Your task to perform on an android device: delete browsing data in the chrome app Image 0: 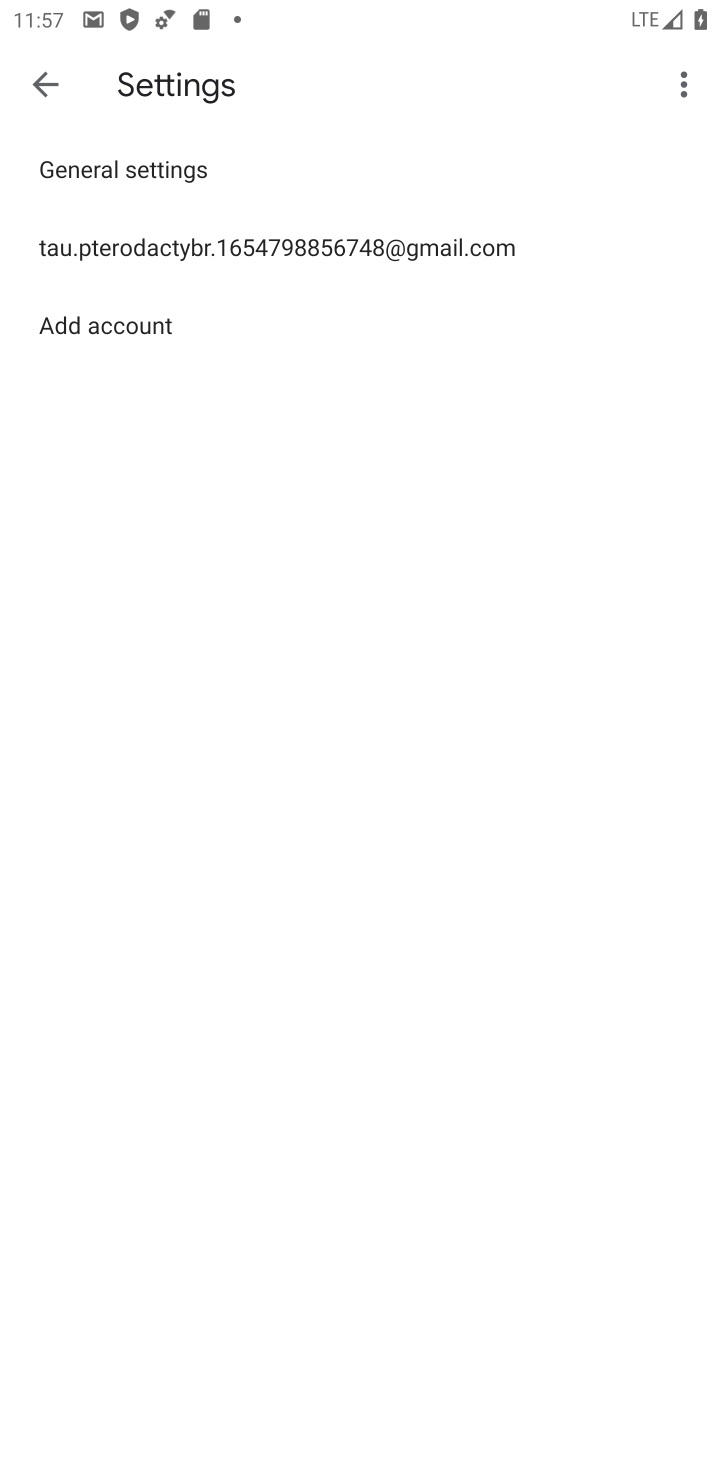
Step 0: click (35, 81)
Your task to perform on an android device: delete browsing data in the chrome app Image 1: 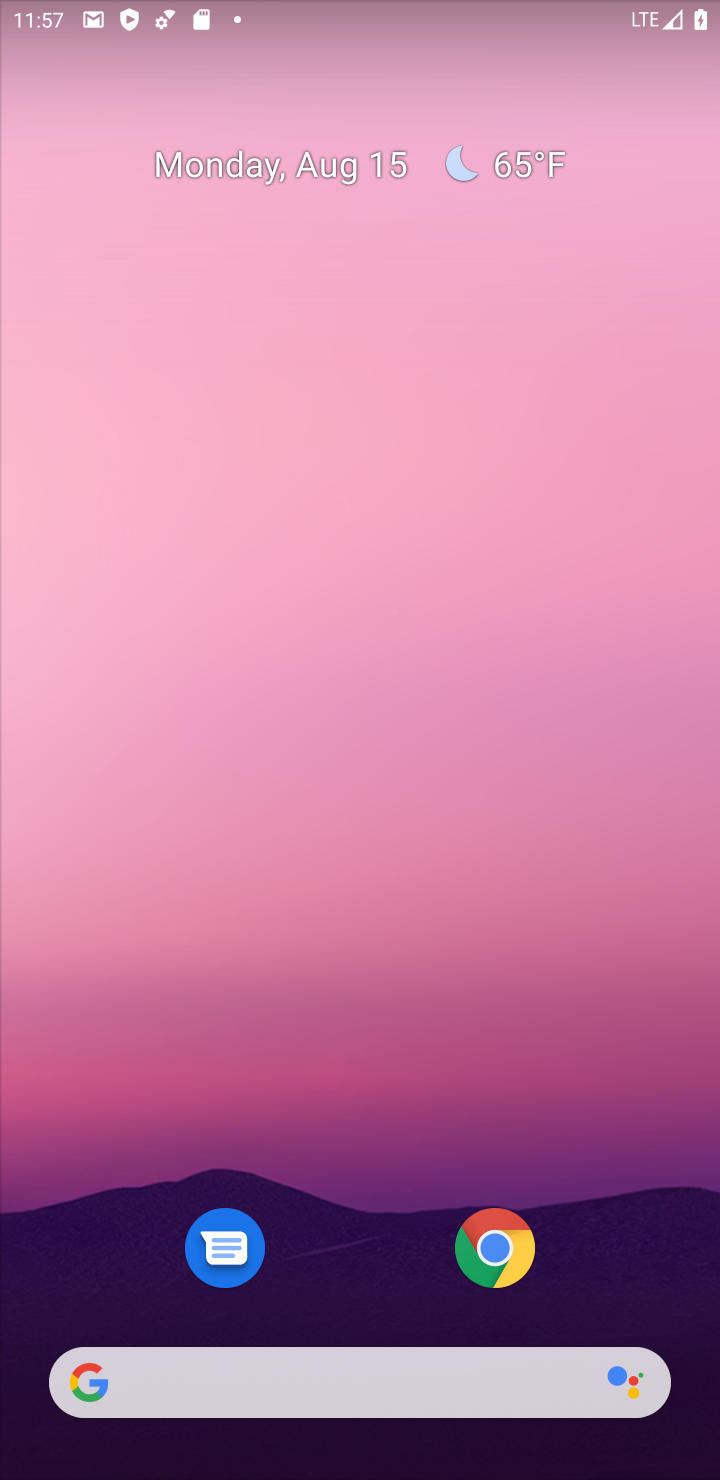
Step 1: click (517, 1292)
Your task to perform on an android device: delete browsing data in the chrome app Image 2: 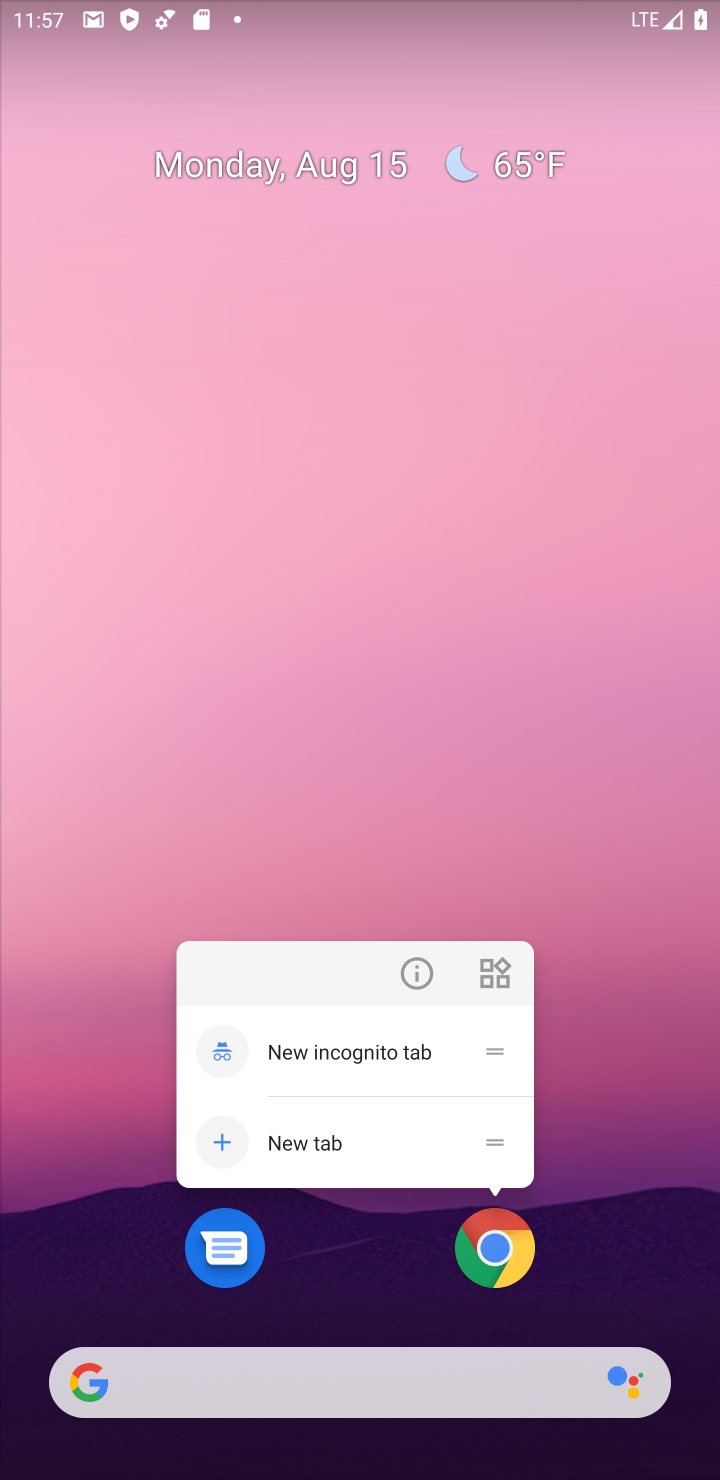
Step 2: click (320, 1163)
Your task to perform on an android device: delete browsing data in the chrome app Image 3: 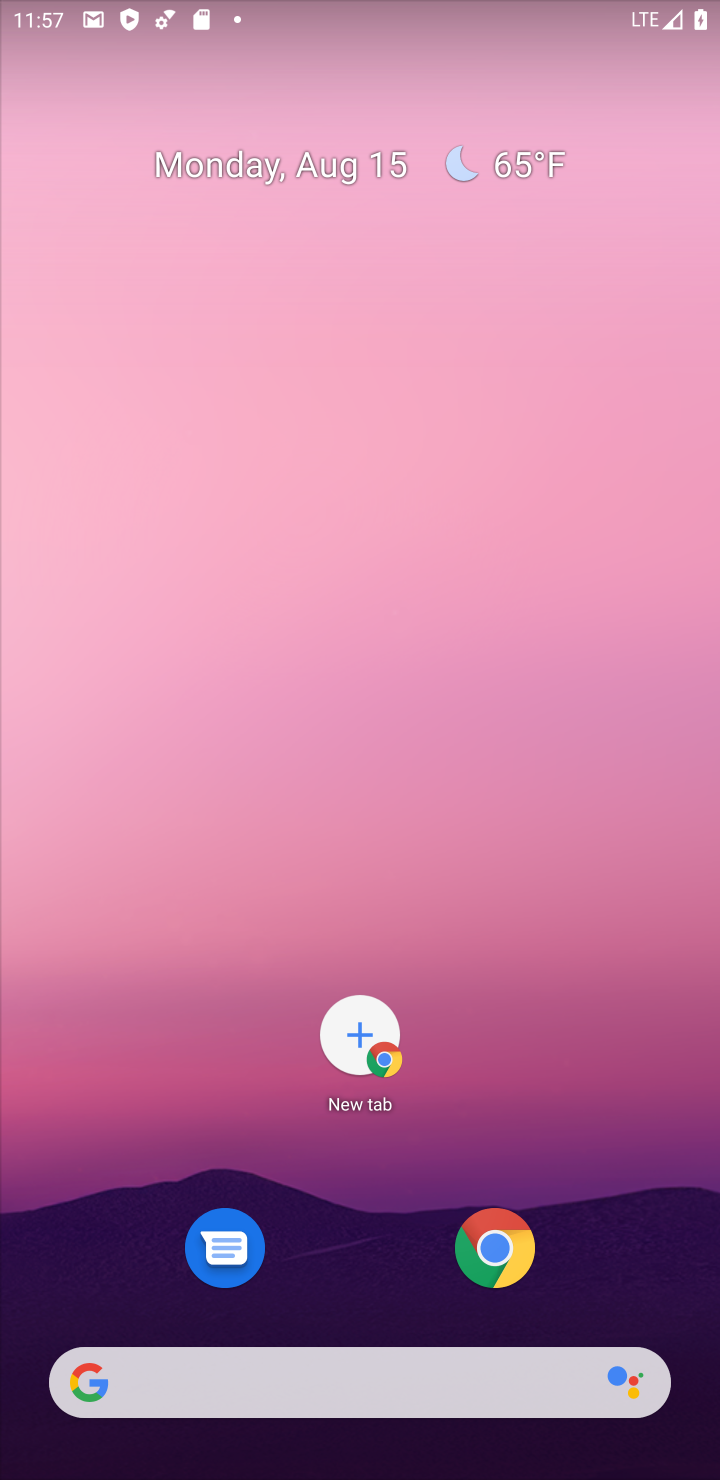
Step 3: click (495, 1268)
Your task to perform on an android device: delete browsing data in the chrome app Image 4: 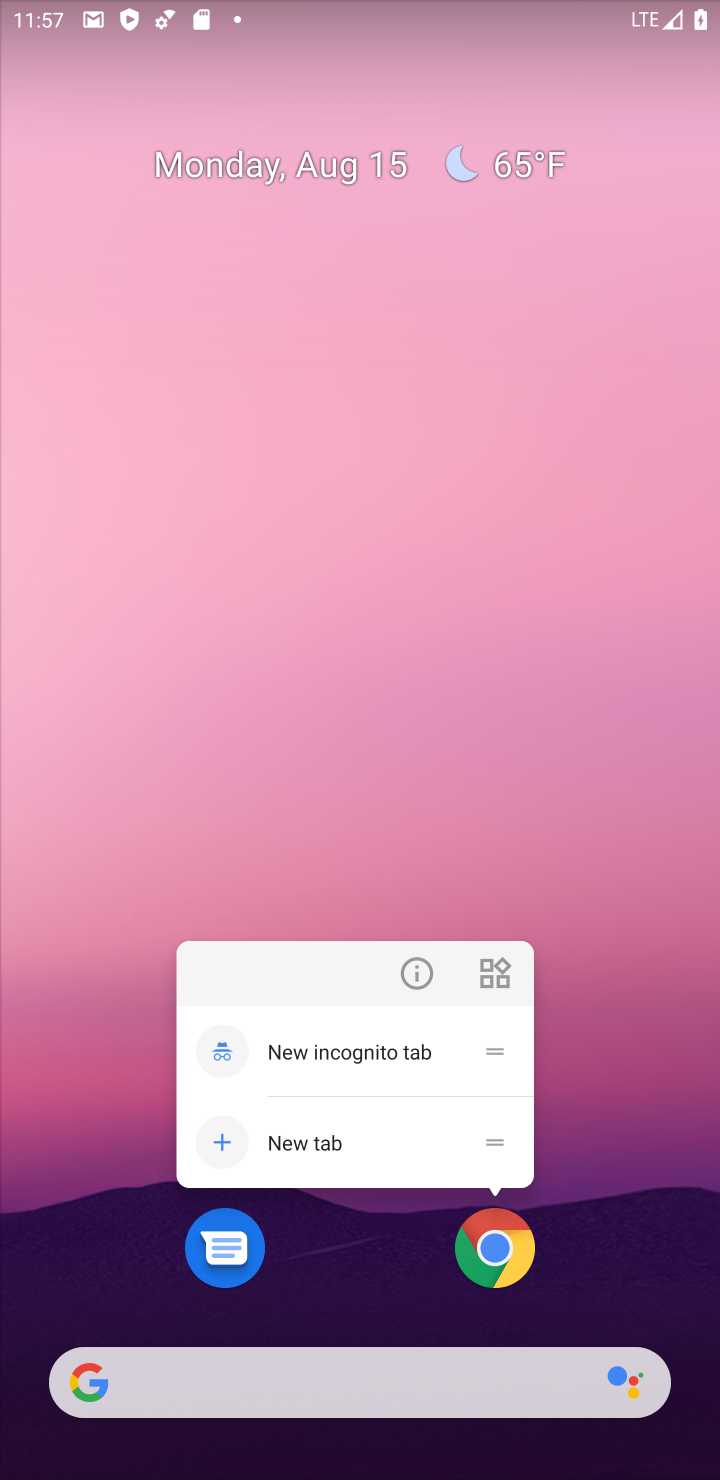
Step 4: click (495, 1268)
Your task to perform on an android device: delete browsing data in the chrome app Image 5: 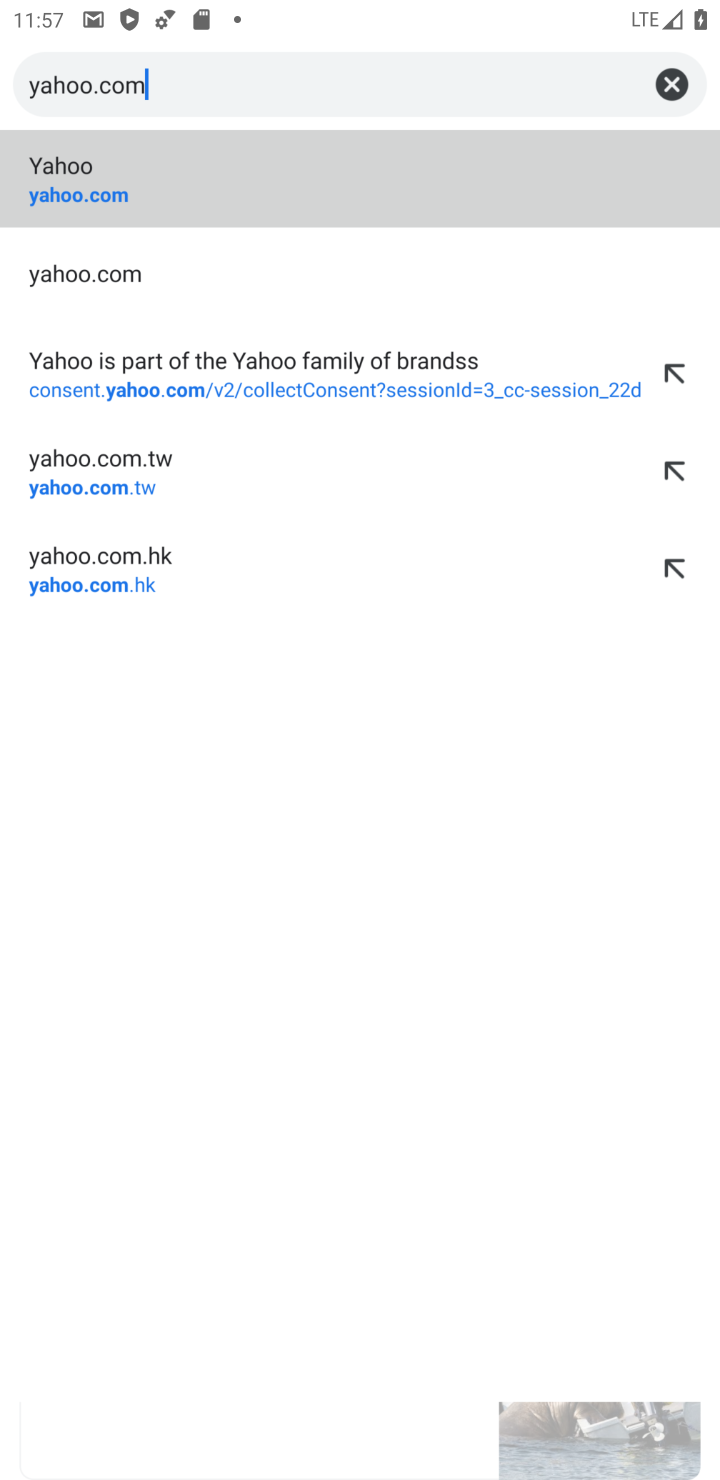
Step 5: click (696, 87)
Your task to perform on an android device: delete browsing data in the chrome app Image 6: 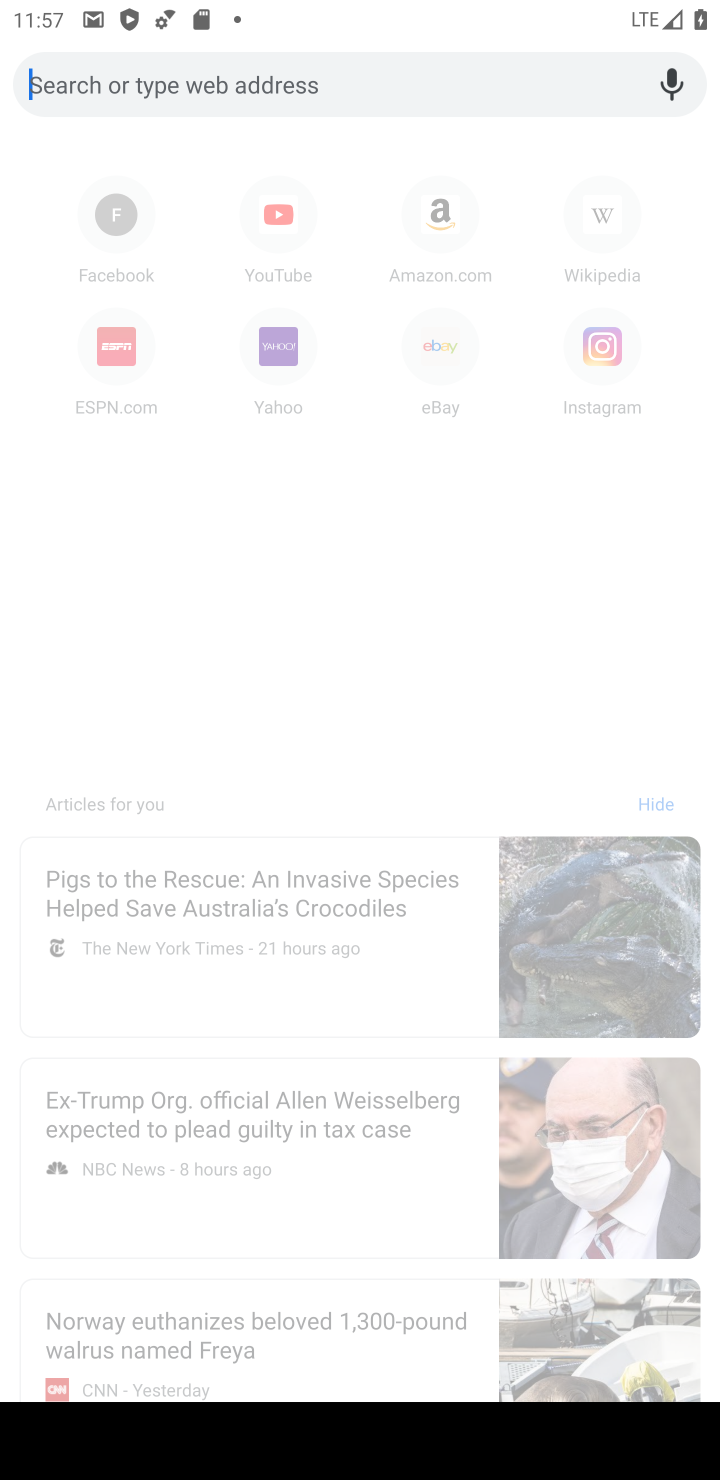
Step 6: click (340, 664)
Your task to perform on an android device: delete browsing data in the chrome app Image 7: 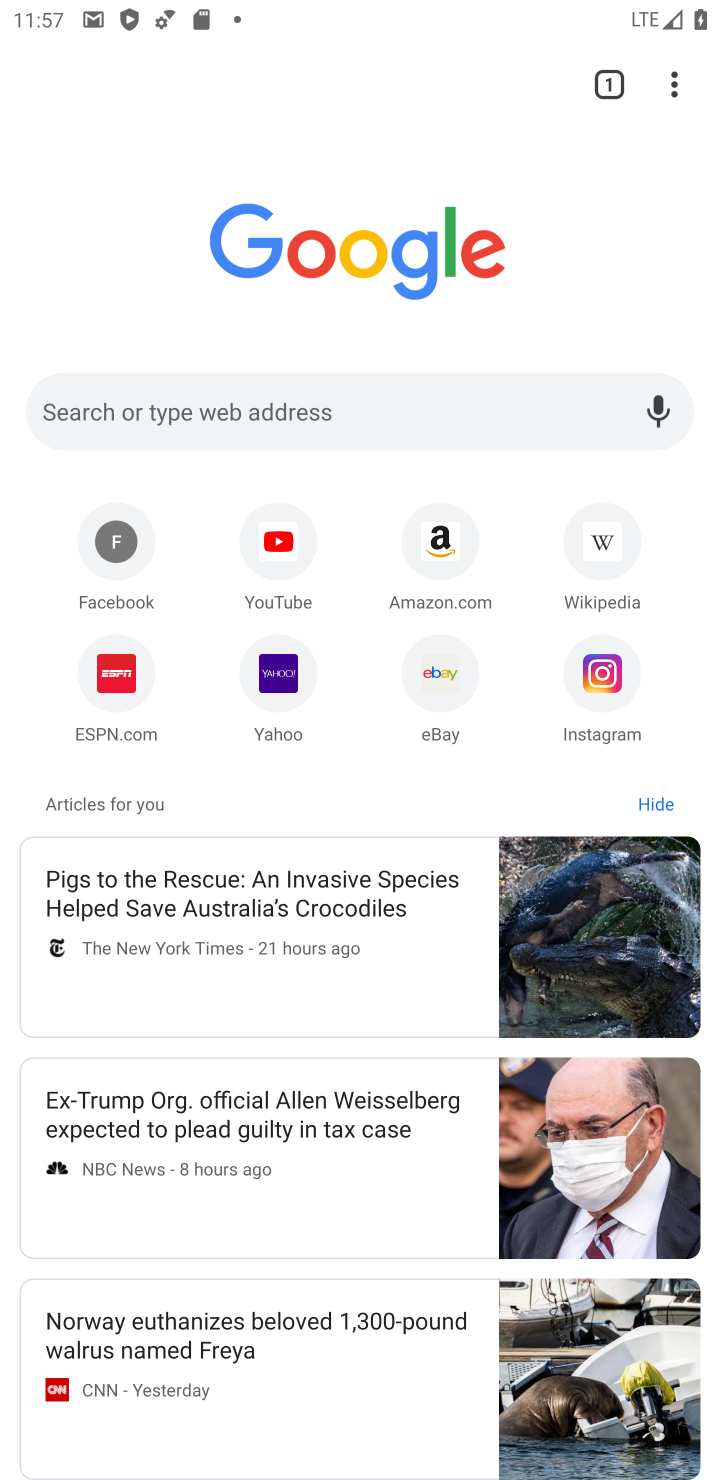
Step 7: click (659, 86)
Your task to perform on an android device: delete browsing data in the chrome app Image 8: 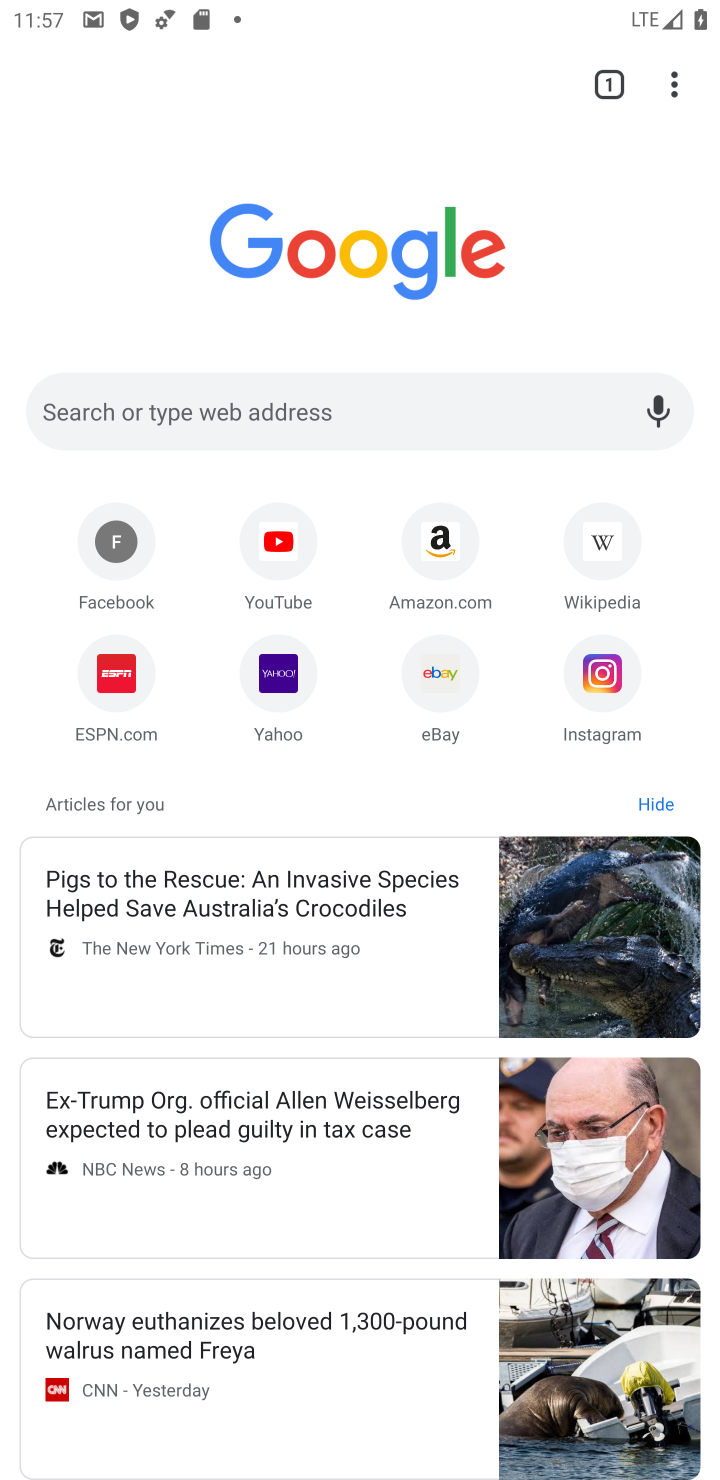
Step 8: task complete